Your task to perform on an android device: turn on javascript in the chrome app Image 0: 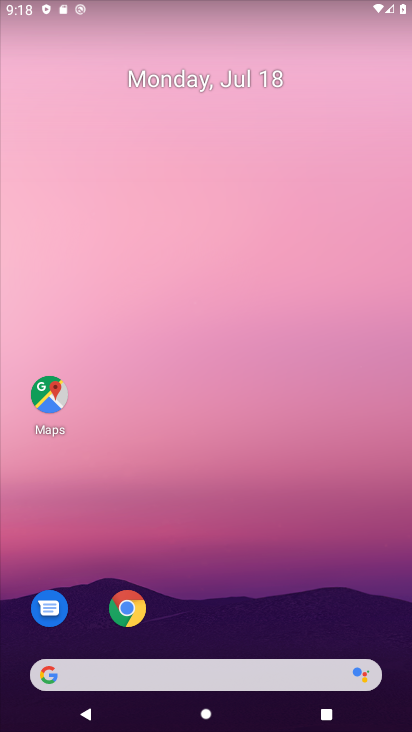
Step 0: drag from (246, 715) to (220, 252)
Your task to perform on an android device: turn on javascript in the chrome app Image 1: 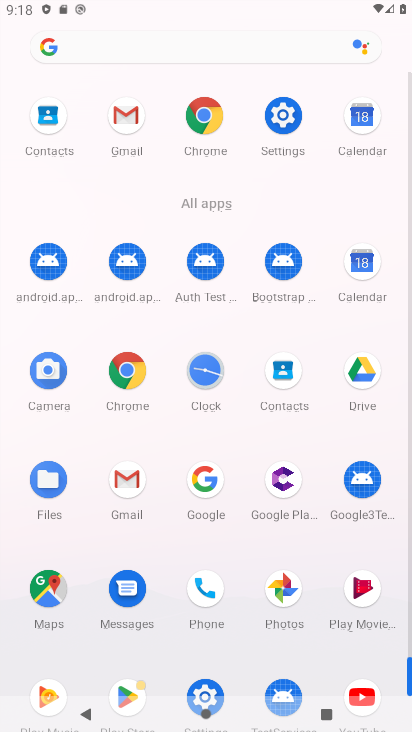
Step 1: click (199, 112)
Your task to perform on an android device: turn on javascript in the chrome app Image 2: 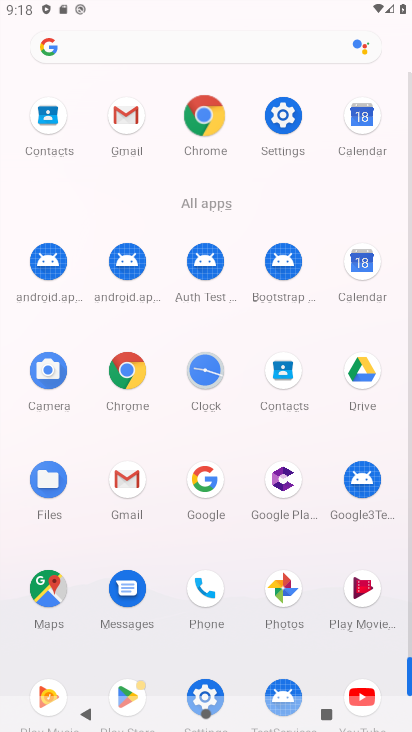
Step 2: click (199, 112)
Your task to perform on an android device: turn on javascript in the chrome app Image 3: 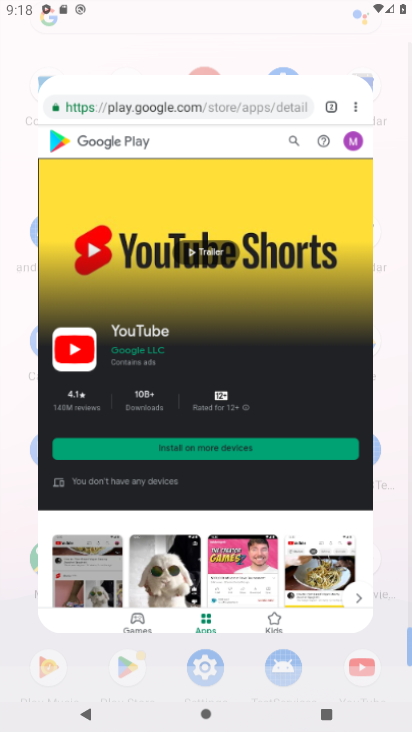
Step 3: click (199, 112)
Your task to perform on an android device: turn on javascript in the chrome app Image 4: 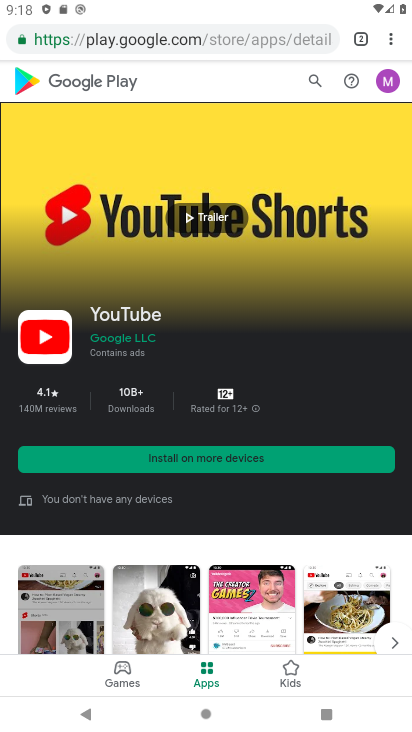
Step 4: drag from (384, 45) to (256, 465)
Your task to perform on an android device: turn on javascript in the chrome app Image 5: 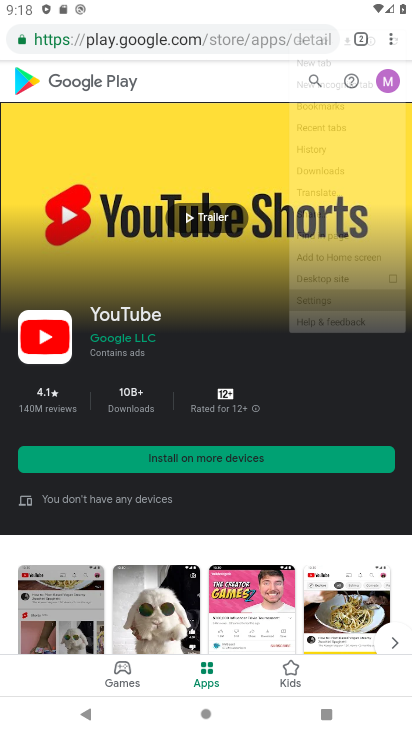
Step 5: click (256, 470)
Your task to perform on an android device: turn on javascript in the chrome app Image 6: 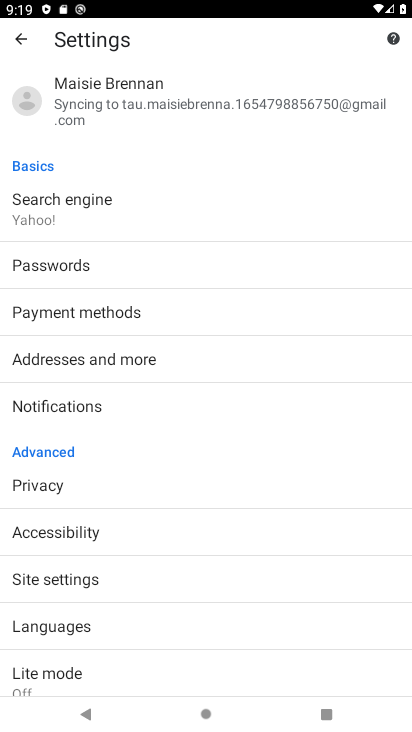
Step 6: drag from (86, 565) to (125, 228)
Your task to perform on an android device: turn on javascript in the chrome app Image 7: 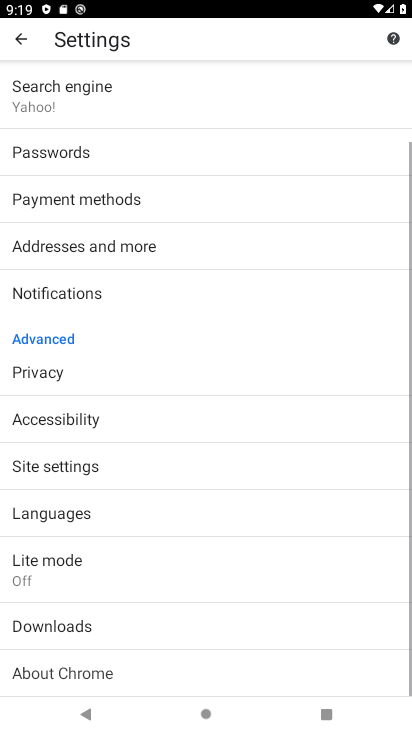
Step 7: drag from (191, 451) to (197, 227)
Your task to perform on an android device: turn on javascript in the chrome app Image 8: 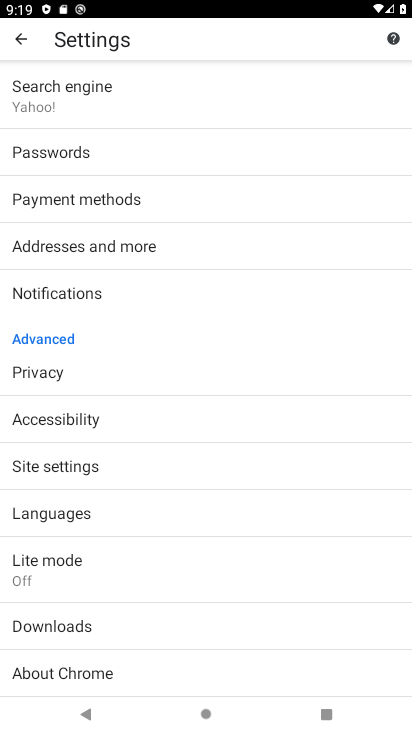
Step 8: click (59, 507)
Your task to perform on an android device: turn on javascript in the chrome app Image 9: 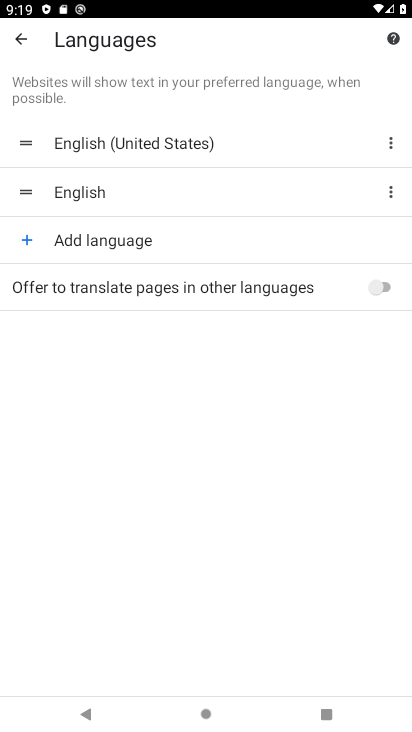
Step 9: click (375, 294)
Your task to perform on an android device: turn on javascript in the chrome app Image 10: 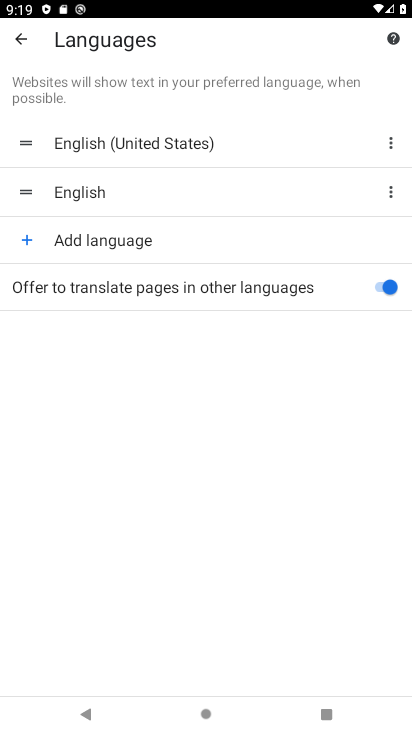
Step 10: task complete